Your task to perform on an android device: Open Amazon Image 0: 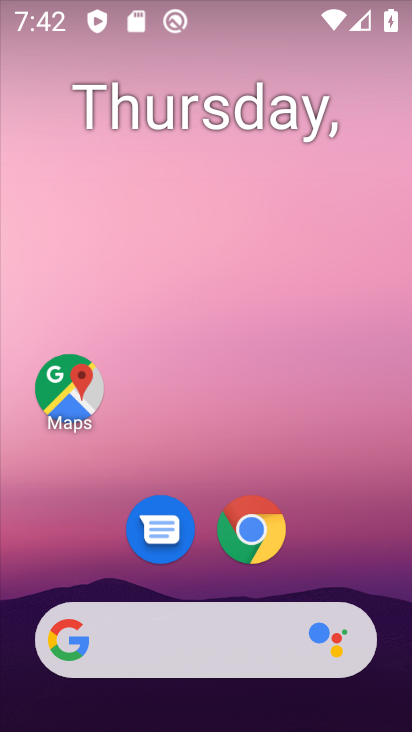
Step 0: click (264, 546)
Your task to perform on an android device: Open Amazon Image 1: 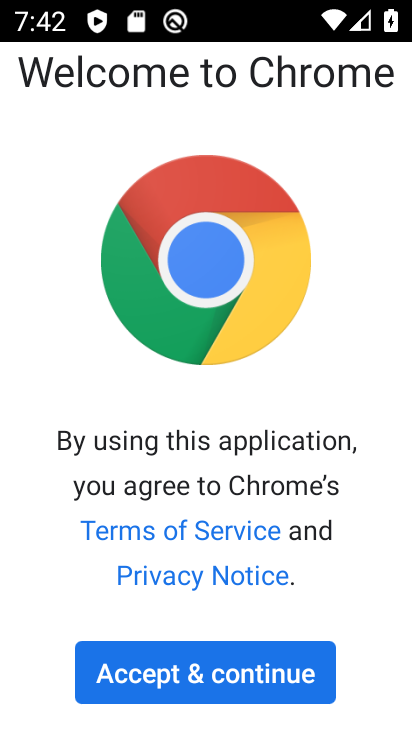
Step 1: click (229, 663)
Your task to perform on an android device: Open Amazon Image 2: 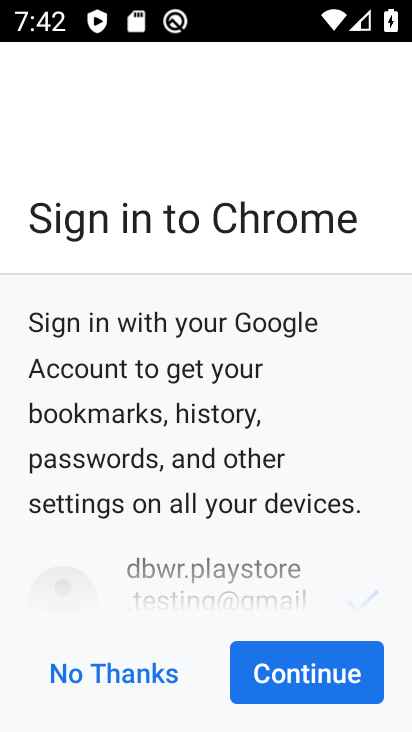
Step 2: click (323, 698)
Your task to perform on an android device: Open Amazon Image 3: 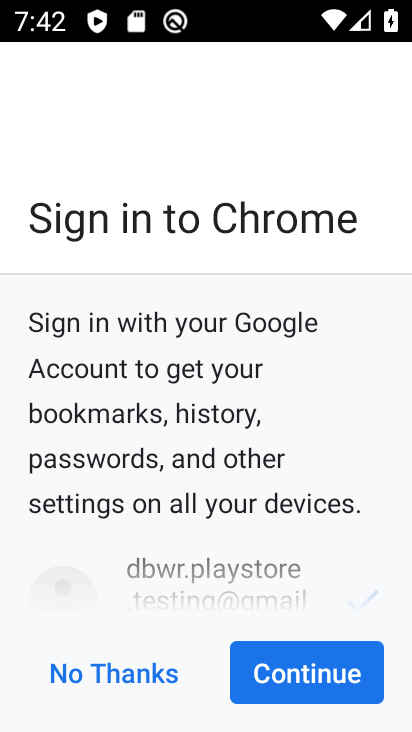
Step 3: click (323, 690)
Your task to perform on an android device: Open Amazon Image 4: 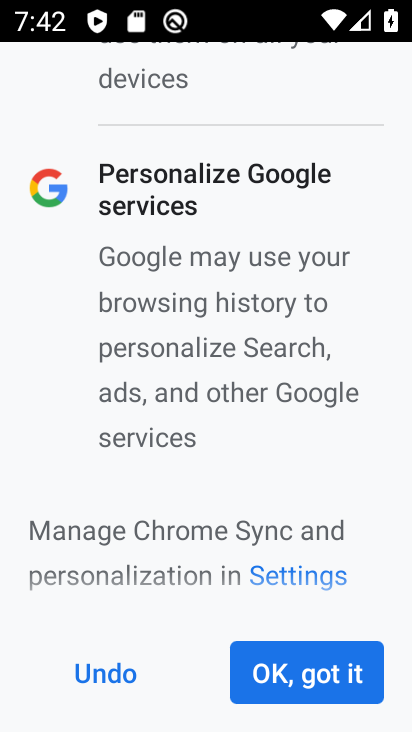
Step 4: click (323, 690)
Your task to perform on an android device: Open Amazon Image 5: 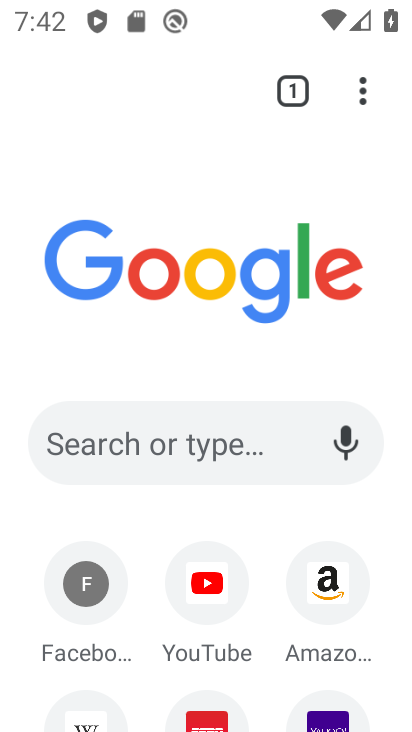
Step 5: click (352, 607)
Your task to perform on an android device: Open Amazon Image 6: 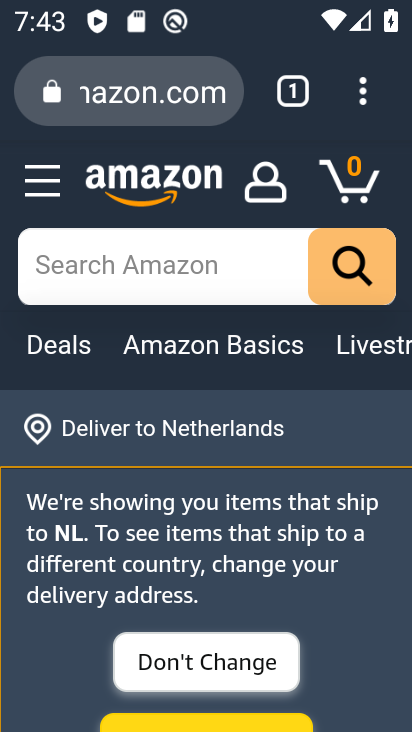
Step 6: task complete